Your task to perform on an android device: Show me productivity apps on the Play Store Image 0: 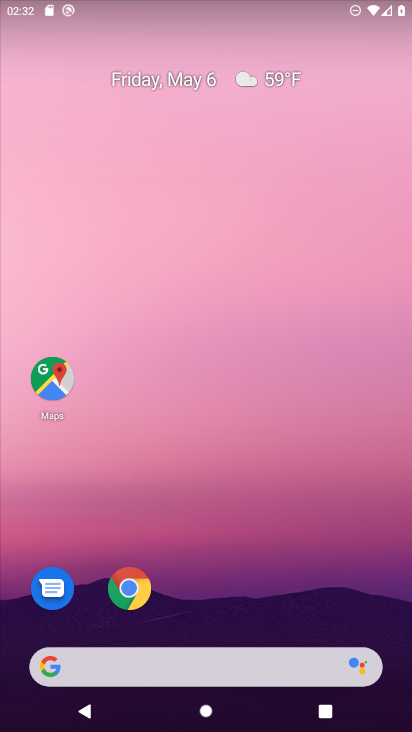
Step 0: drag from (227, 641) to (105, 34)
Your task to perform on an android device: Show me productivity apps on the Play Store Image 1: 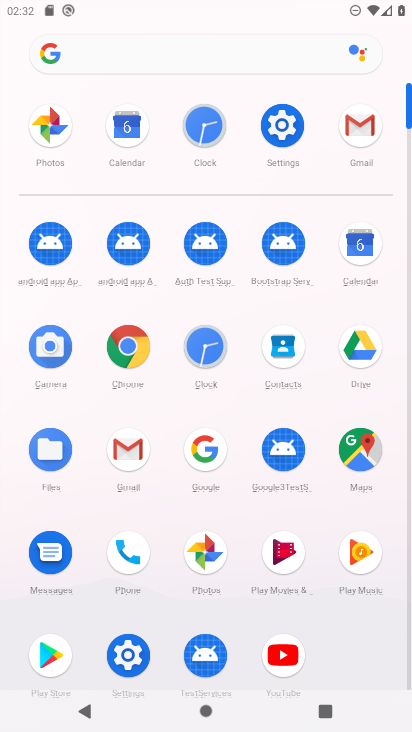
Step 1: click (51, 660)
Your task to perform on an android device: Show me productivity apps on the Play Store Image 2: 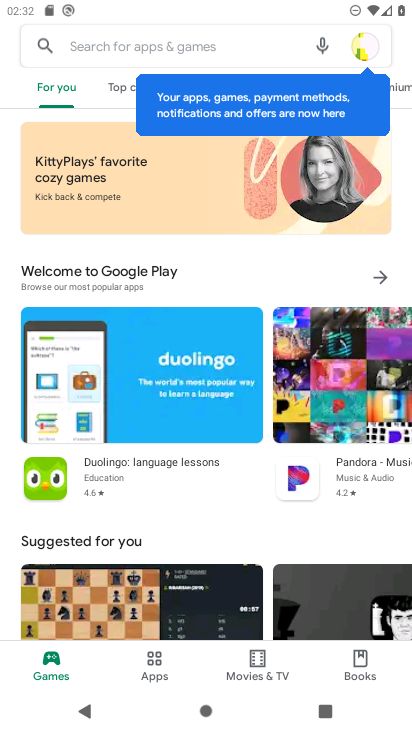
Step 2: click (206, 99)
Your task to perform on an android device: Show me productivity apps on the Play Store Image 3: 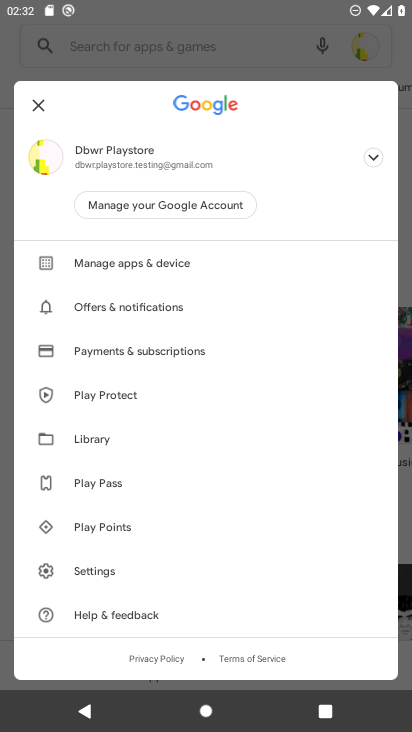
Step 3: click (34, 104)
Your task to perform on an android device: Show me productivity apps on the Play Store Image 4: 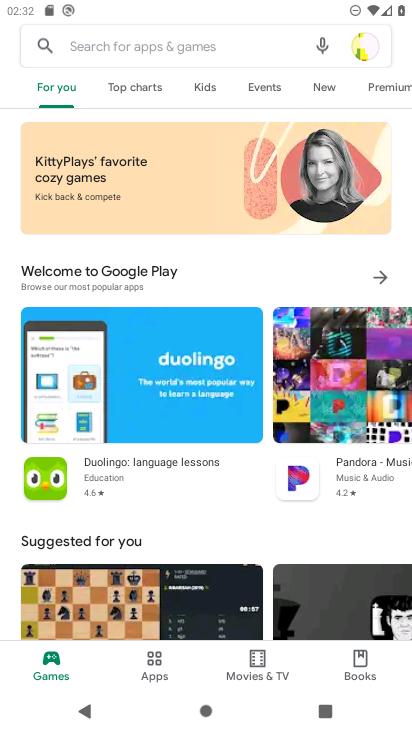
Step 4: drag from (372, 95) to (68, 180)
Your task to perform on an android device: Show me productivity apps on the Play Store Image 5: 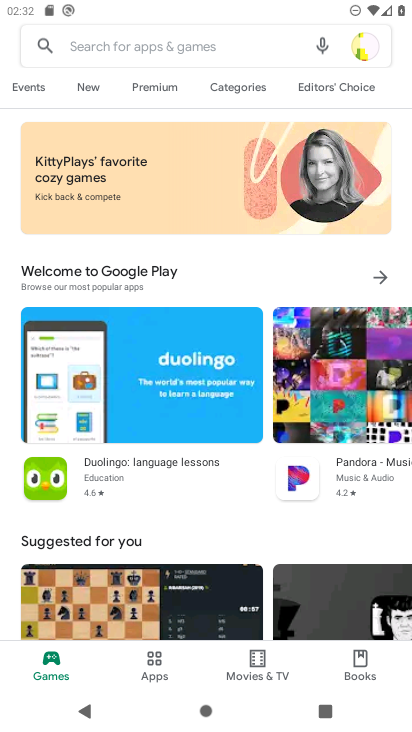
Step 5: click (240, 86)
Your task to perform on an android device: Show me productivity apps on the Play Store Image 6: 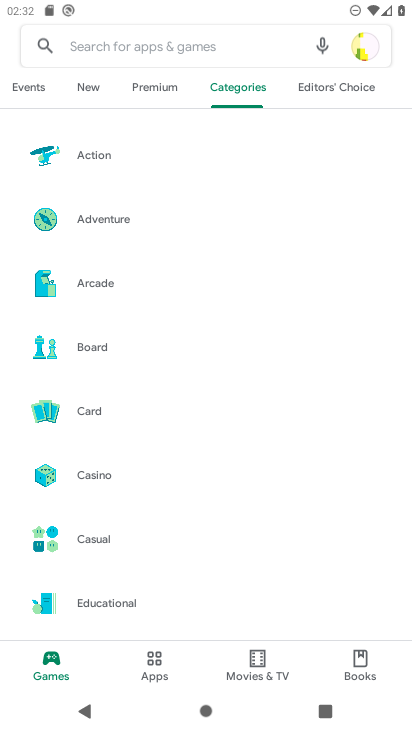
Step 6: drag from (227, 621) to (119, 83)
Your task to perform on an android device: Show me productivity apps on the Play Store Image 7: 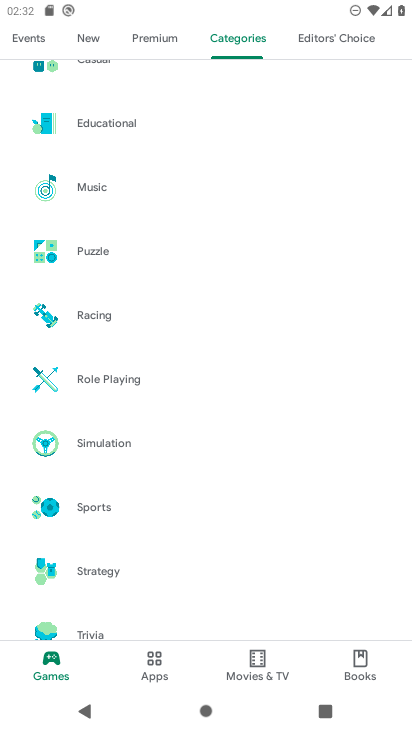
Step 7: drag from (213, 509) to (147, 96)
Your task to perform on an android device: Show me productivity apps on the Play Store Image 8: 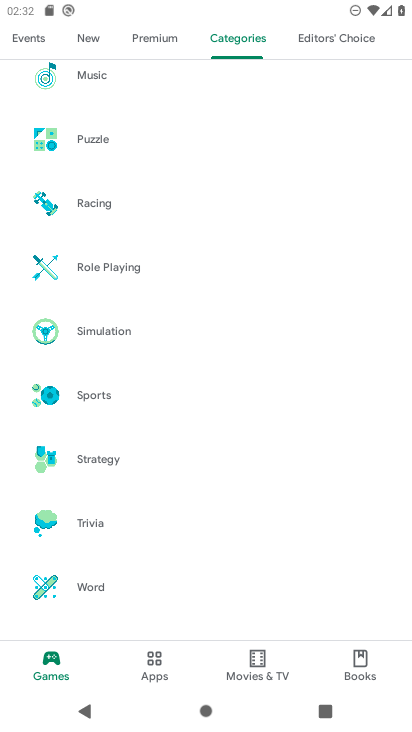
Step 8: drag from (144, 525) to (86, 48)
Your task to perform on an android device: Show me productivity apps on the Play Store Image 9: 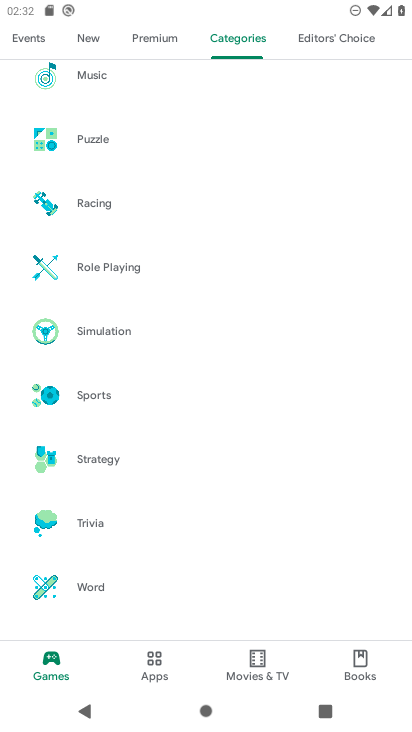
Step 9: drag from (231, 286) to (165, 536)
Your task to perform on an android device: Show me productivity apps on the Play Store Image 10: 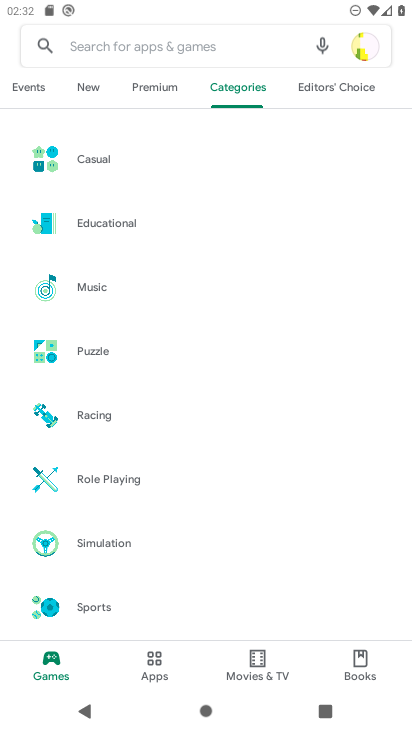
Step 10: click (150, 679)
Your task to perform on an android device: Show me productivity apps on the Play Store Image 11: 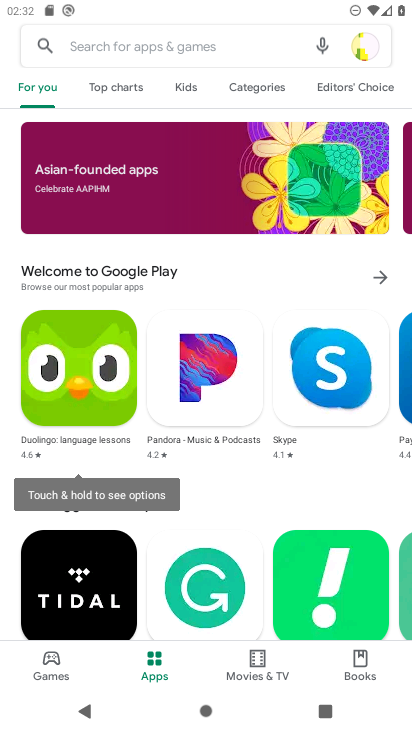
Step 11: click (256, 86)
Your task to perform on an android device: Show me productivity apps on the Play Store Image 12: 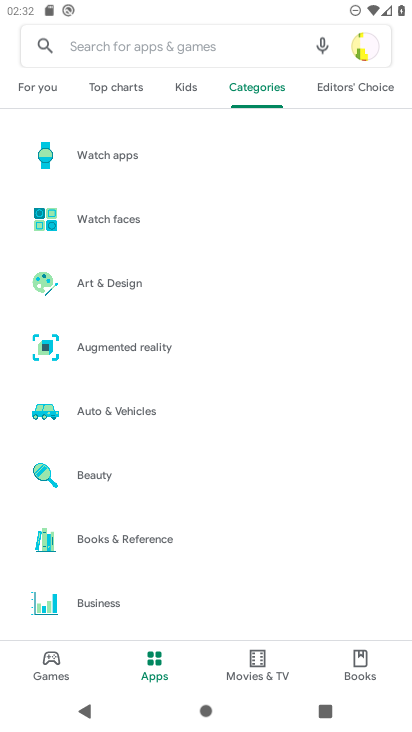
Step 12: drag from (280, 496) to (179, 173)
Your task to perform on an android device: Show me productivity apps on the Play Store Image 13: 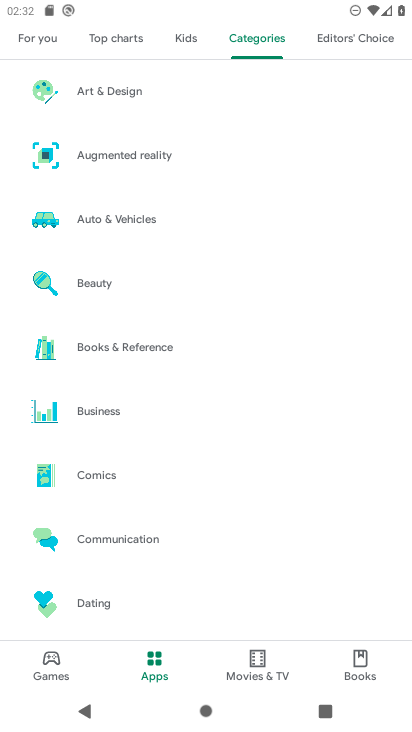
Step 13: drag from (236, 517) to (117, 166)
Your task to perform on an android device: Show me productivity apps on the Play Store Image 14: 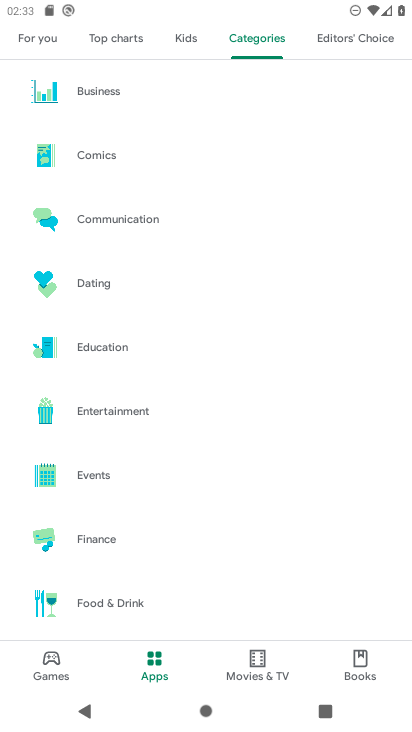
Step 14: drag from (140, 549) to (37, 100)
Your task to perform on an android device: Show me productivity apps on the Play Store Image 15: 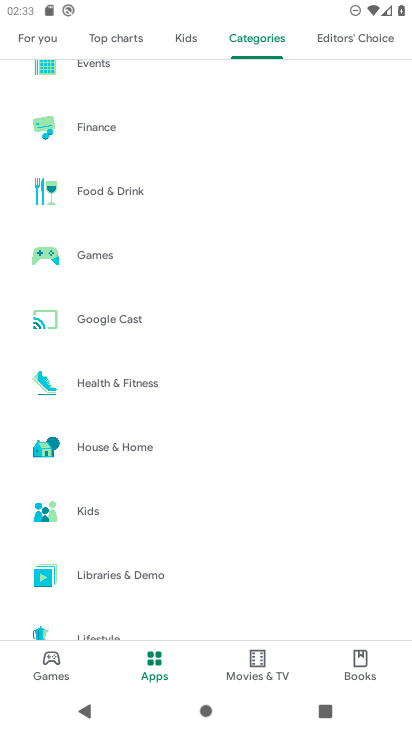
Step 15: drag from (240, 562) to (116, 138)
Your task to perform on an android device: Show me productivity apps on the Play Store Image 16: 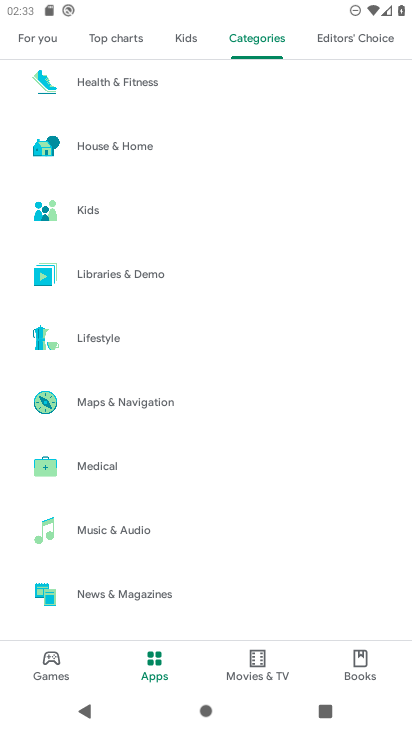
Step 16: drag from (218, 490) to (260, 127)
Your task to perform on an android device: Show me productivity apps on the Play Store Image 17: 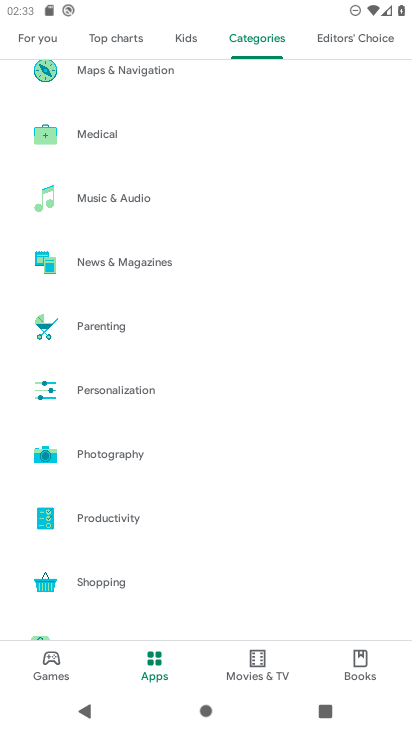
Step 17: click (81, 529)
Your task to perform on an android device: Show me productivity apps on the Play Store Image 18: 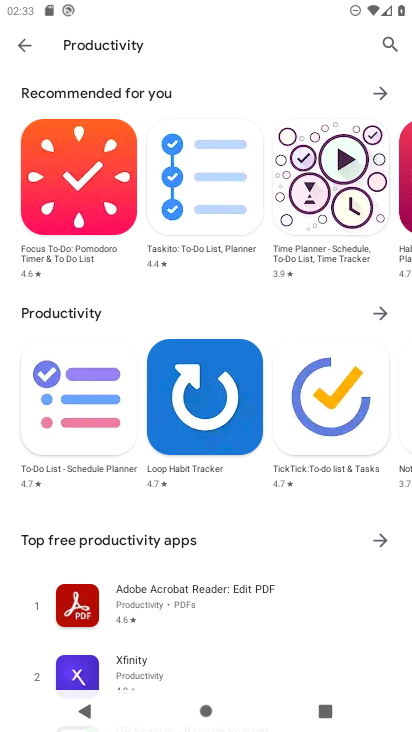
Step 18: task complete